Your task to perform on an android device: stop showing notifications on the lock screen Image 0: 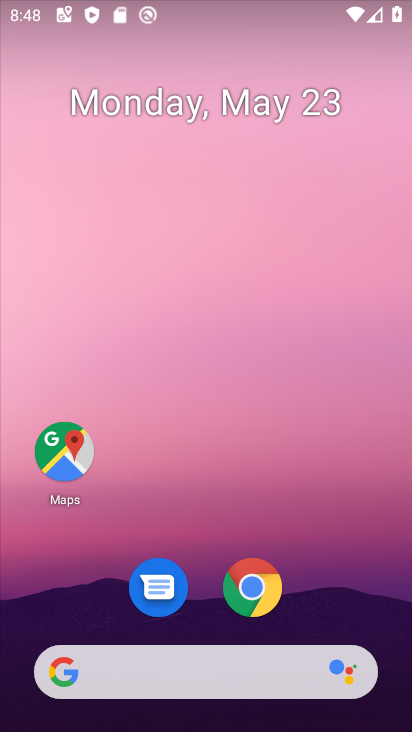
Step 0: drag from (337, 584) to (274, 43)
Your task to perform on an android device: stop showing notifications on the lock screen Image 1: 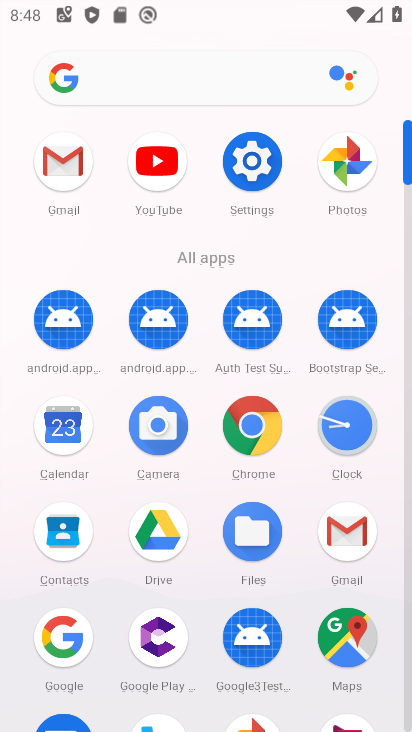
Step 1: click (274, 43)
Your task to perform on an android device: stop showing notifications on the lock screen Image 2: 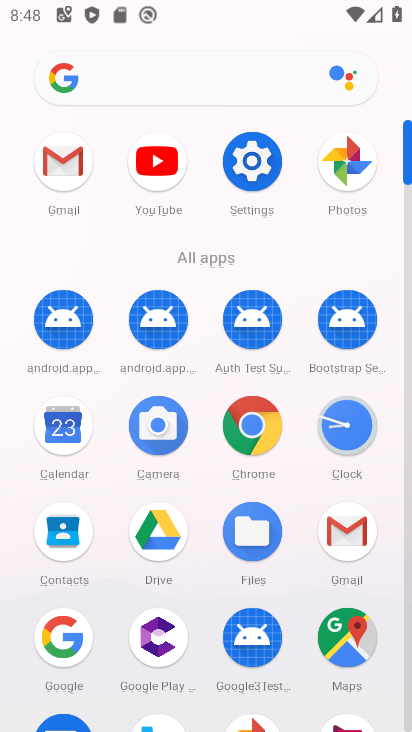
Step 2: click (257, 173)
Your task to perform on an android device: stop showing notifications on the lock screen Image 3: 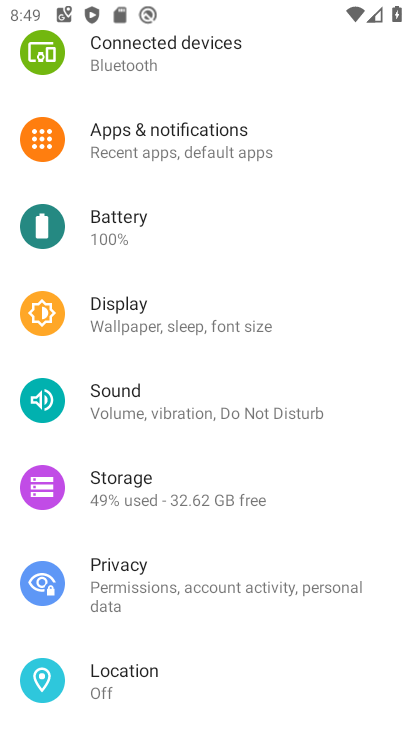
Step 3: click (188, 130)
Your task to perform on an android device: stop showing notifications on the lock screen Image 4: 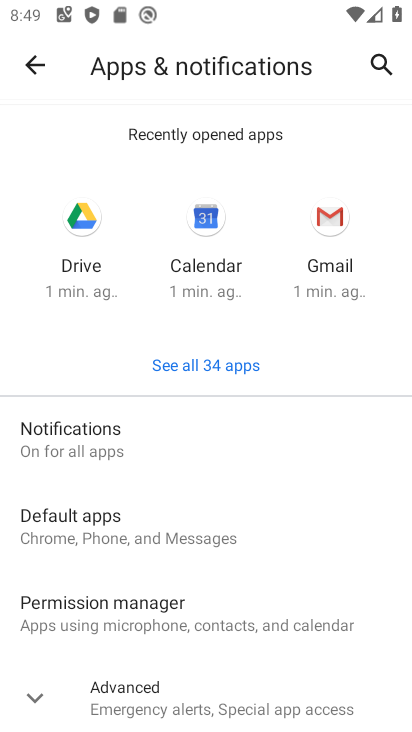
Step 4: click (131, 434)
Your task to perform on an android device: stop showing notifications on the lock screen Image 5: 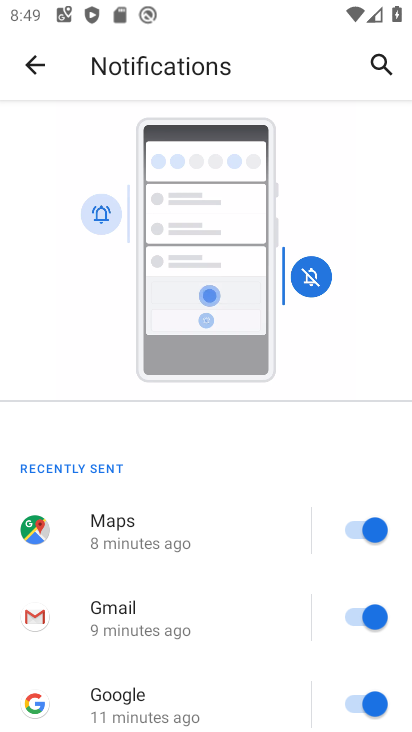
Step 5: drag from (266, 652) to (293, 161)
Your task to perform on an android device: stop showing notifications on the lock screen Image 6: 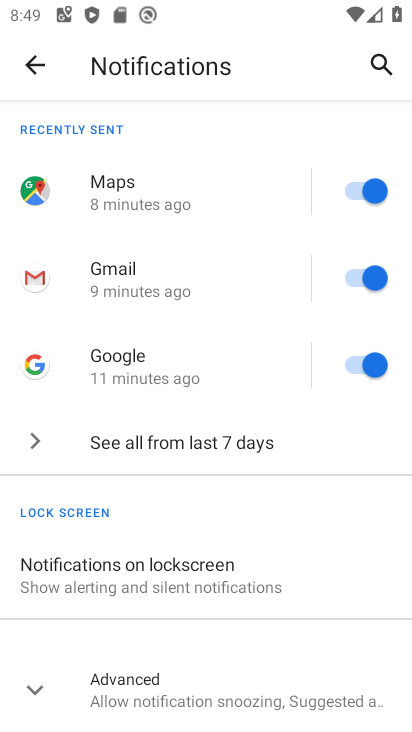
Step 6: click (168, 571)
Your task to perform on an android device: stop showing notifications on the lock screen Image 7: 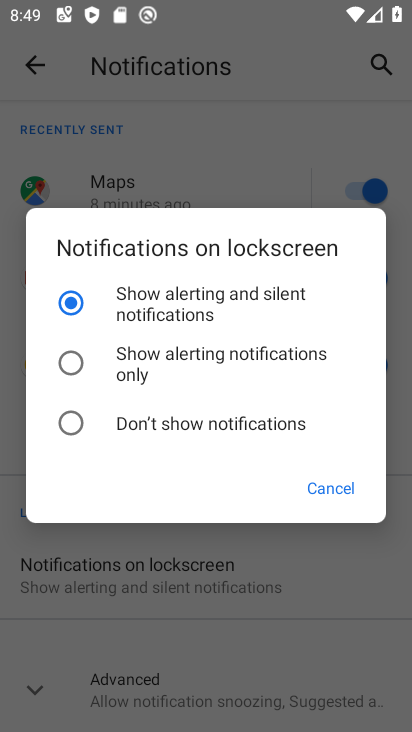
Step 7: click (65, 417)
Your task to perform on an android device: stop showing notifications on the lock screen Image 8: 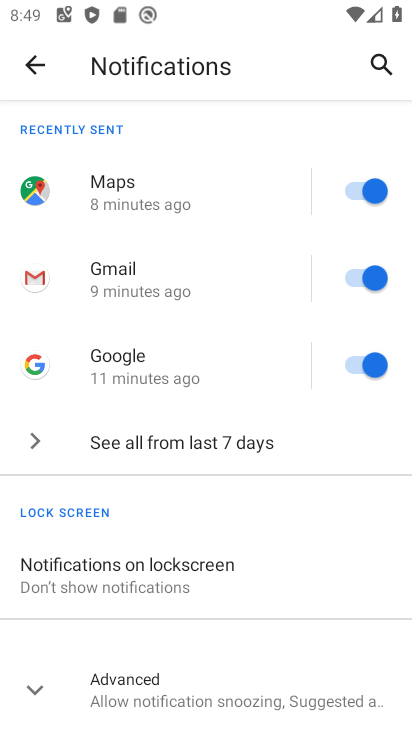
Step 8: task complete